Your task to perform on an android device: Go to Google maps Image 0: 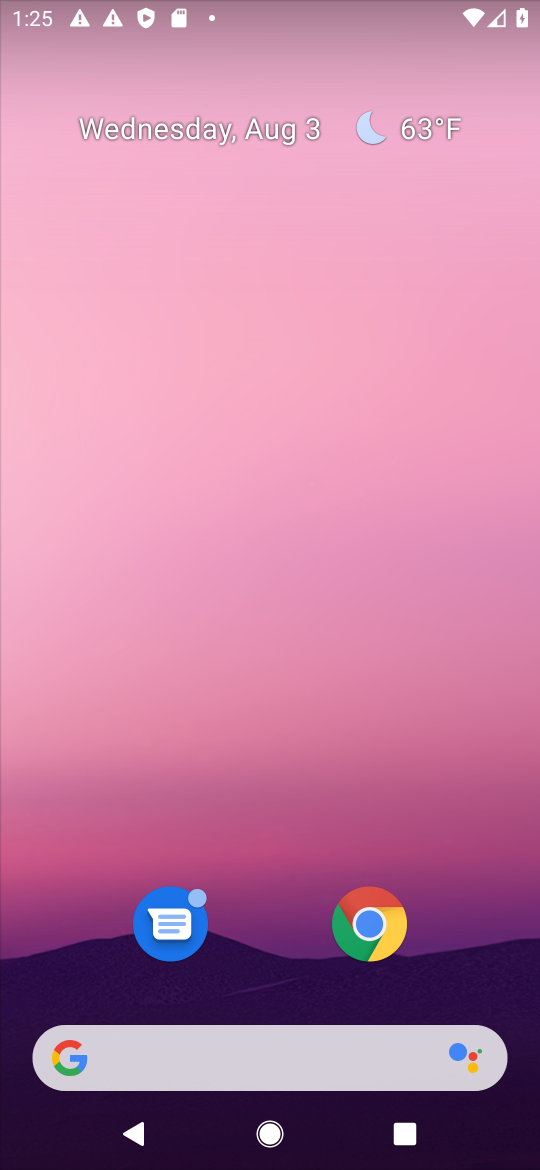
Step 0: press home button
Your task to perform on an android device: Go to Google maps Image 1: 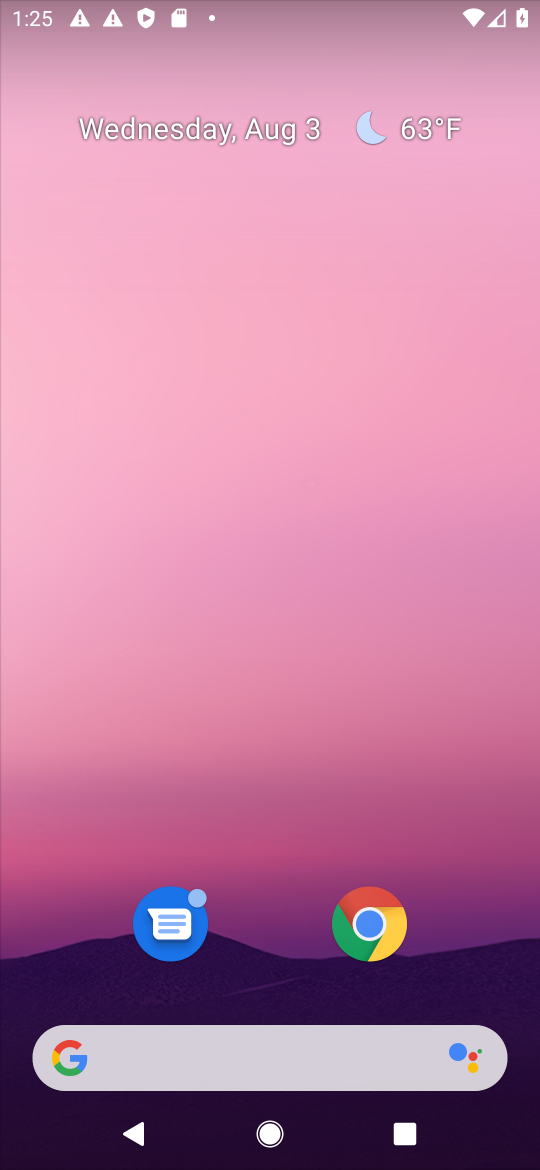
Step 1: press home button
Your task to perform on an android device: Go to Google maps Image 2: 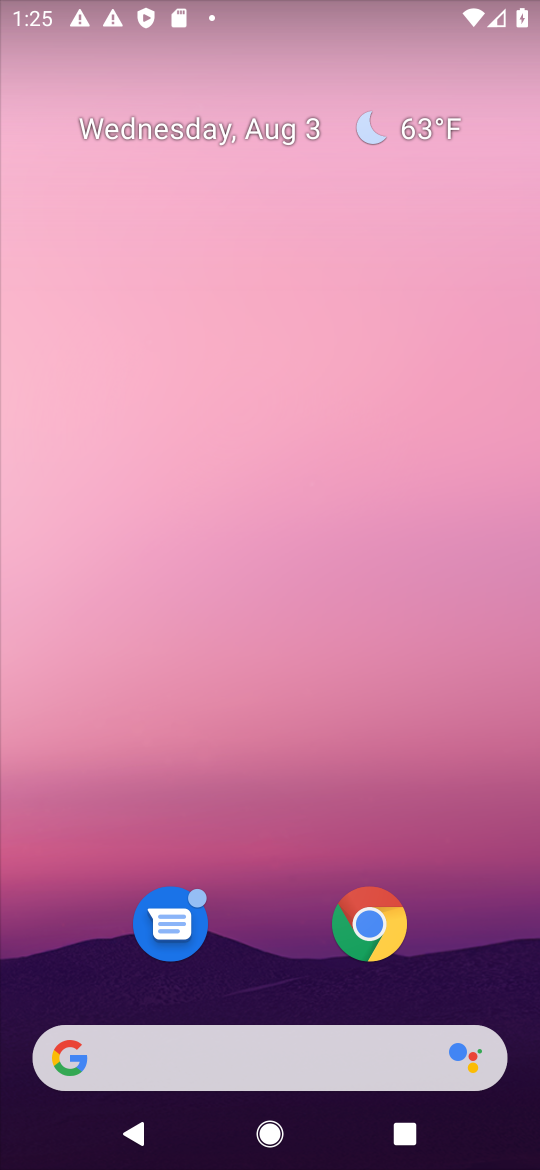
Step 2: drag from (281, 984) to (313, 91)
Your task to perform on an android device: Go to Google maps Image 3: 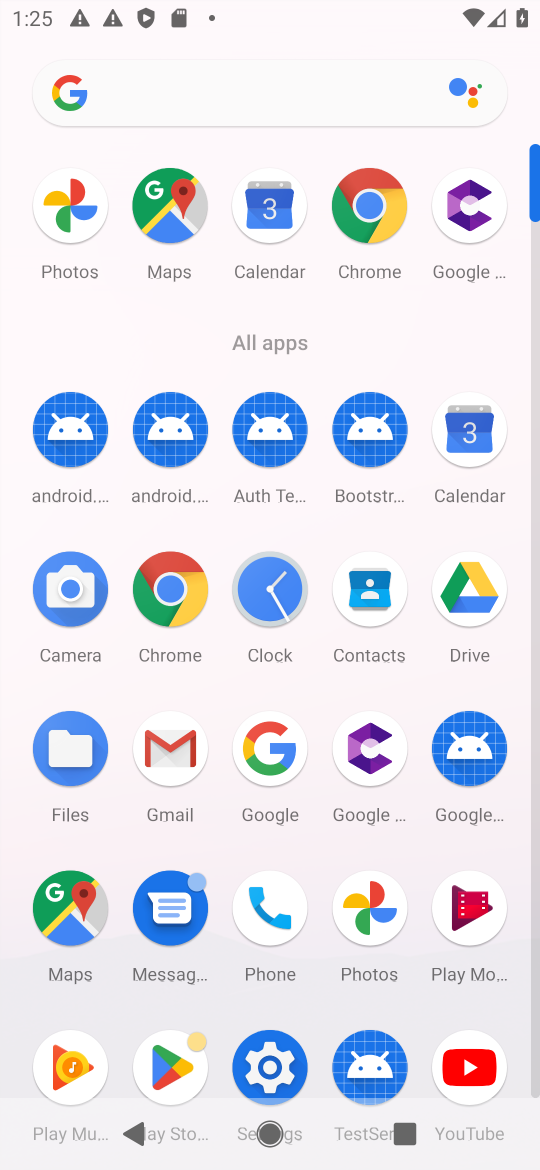
Step 3: click (66, 895)
Your task to perform on an android device: Go to Google maps Image 4: 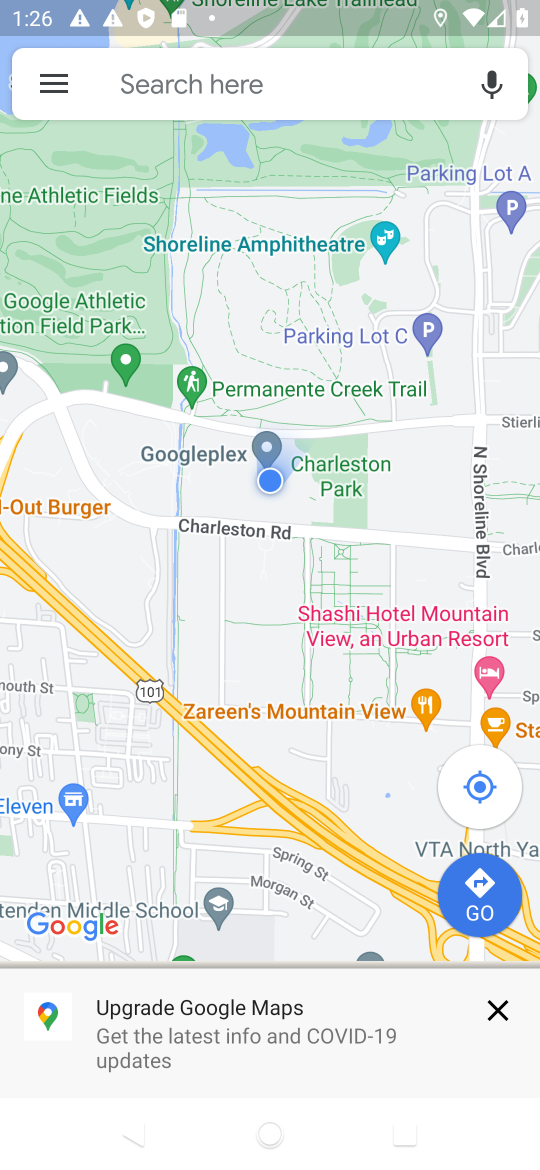
Step 4: click (43, 72)
Your task to perform on an android device: Go to Google maps Image 5: 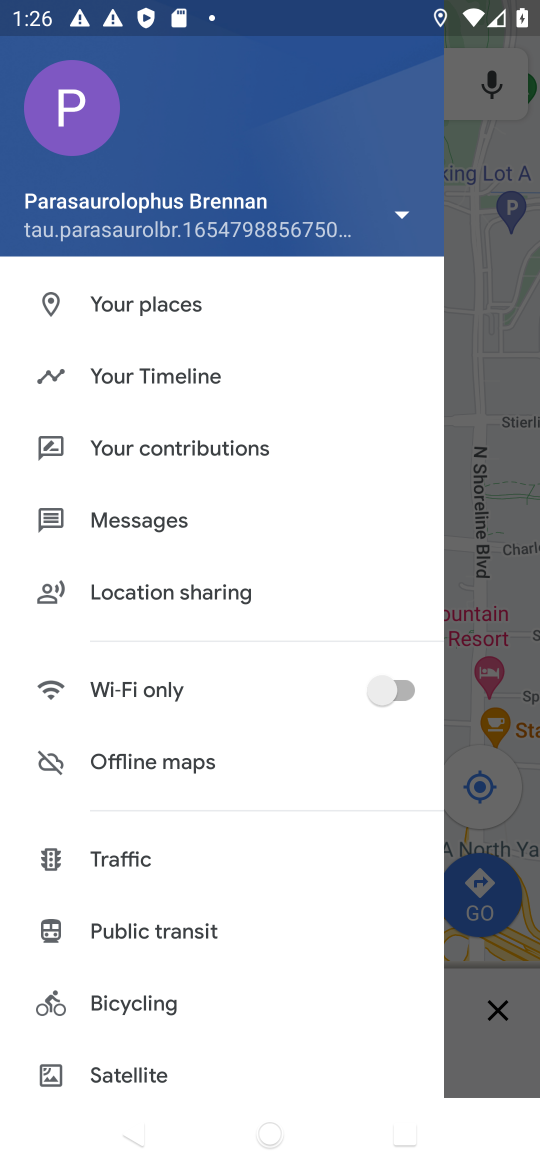
Step 5: click (487, 551)
Your task to perform on an android device: Go to Google maps Image 6: 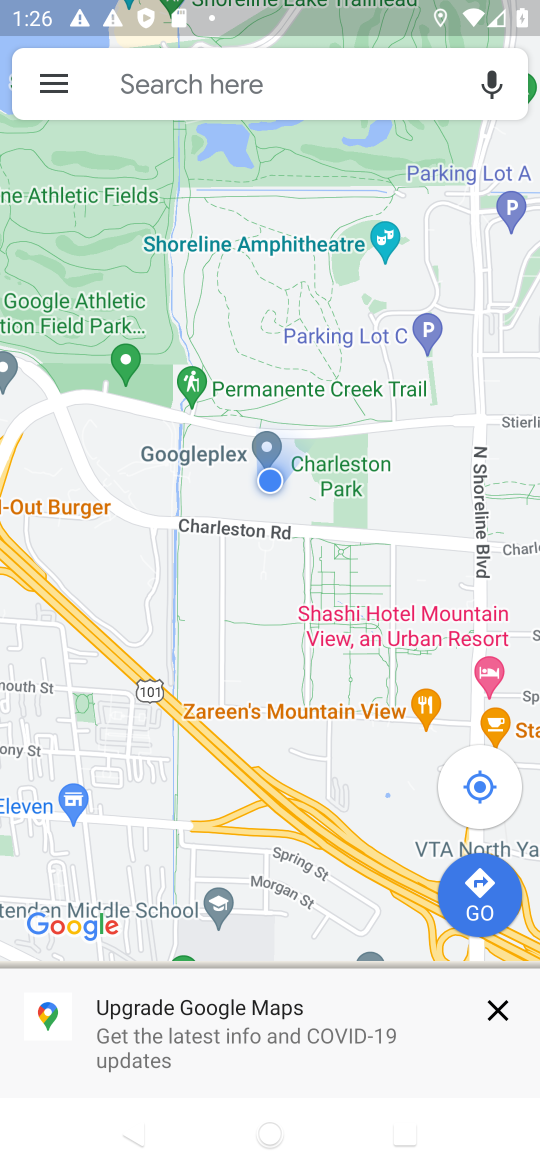
Step 6: task complete